Your task to perform on an android device: read, delete, or share a saved page in the chrome app Image 0: 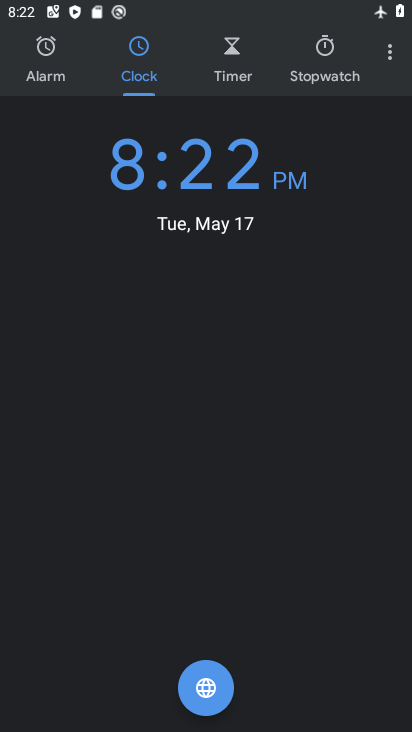
Step 0: drag from (221, 632) to (246, 566)
Your task to perform on an android device: read, delete, or share a saved page in the chrome app Image 1: 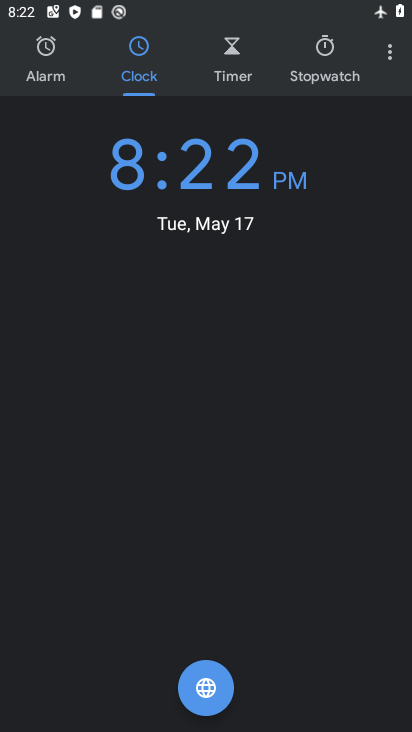
Step 1: press home button
Your task to perform on an android device: read, delete, or share a saved page in the chrome app Image 2: 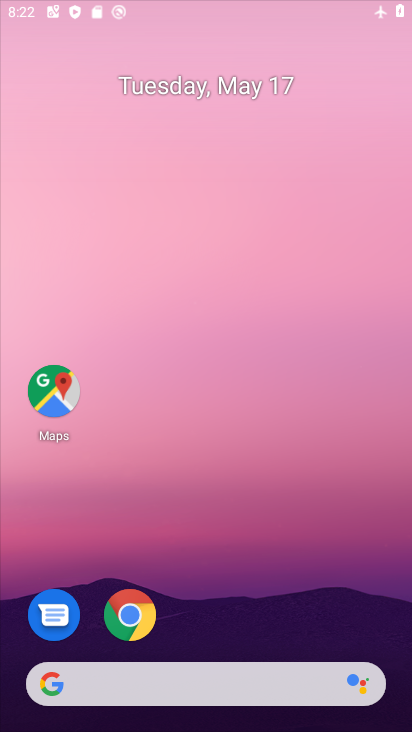
Step 2: drag from (222, 619) to (206, 202)
Your task to perform on an android device: read, delete, or share a saved page in the chrome app Image 3: 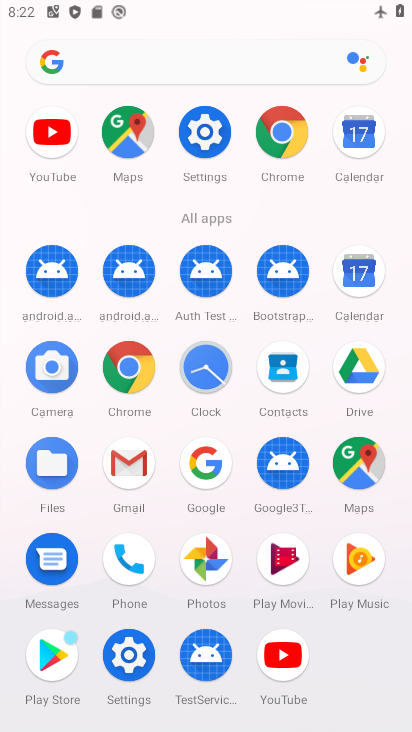
Step 3: click (111, 377)
Your task to perform on an android device: read, delete, or share a saved page in the chrome app Image 4: 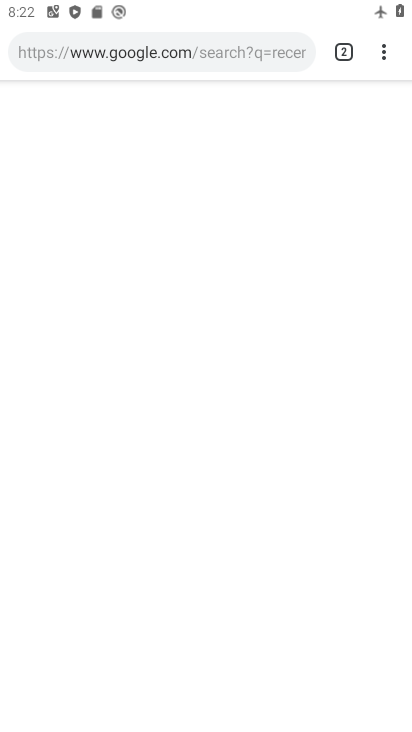
Step 4: click (377, 52)
Your task to perform on an android device: read, delete, or share a saved page in the chrome app Image 5: 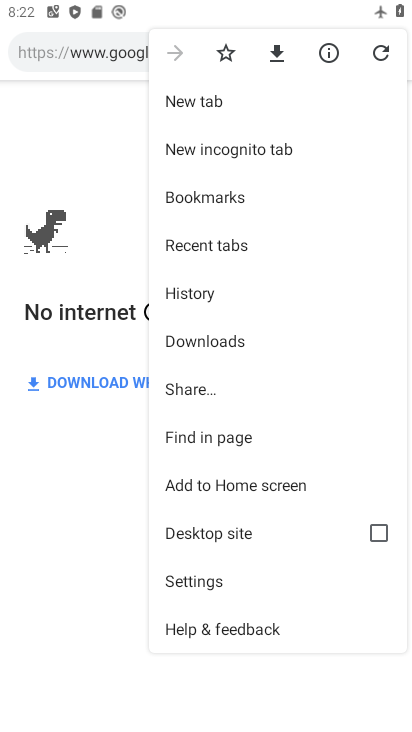
Step 5: click (214, 575)
Your task to perform on an android device: read, delete, or share a saved page in the chrome app Image 6: 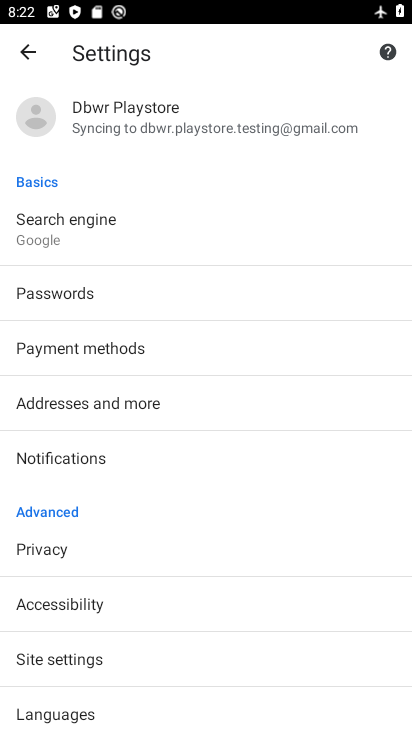
Step 6: click (21, 51)
Your task to perform on an android device: read, delete, or share a saved page in the chrome app Image 7: 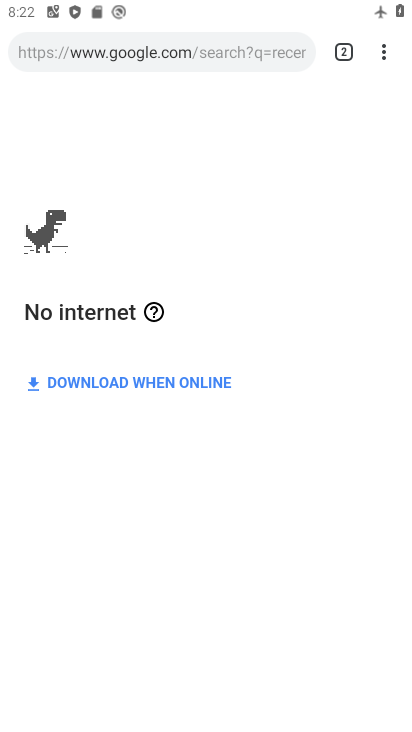
Step 7: click (379, 51)
Your task to perform on an android device: read, delete, or share a saved page in the chrome app Image 8: 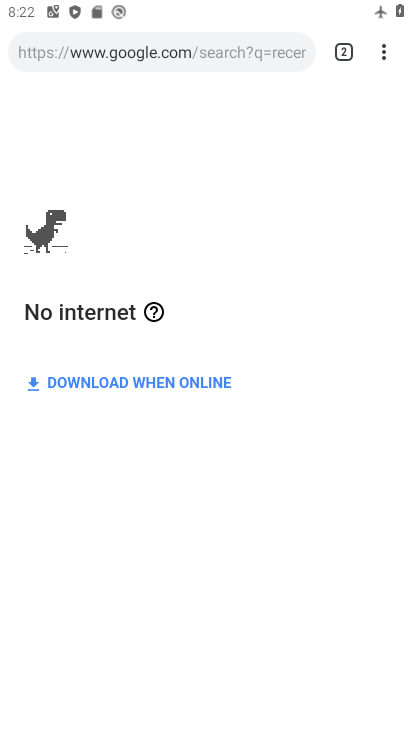
Step 8: click (374, 53)
Your task to perform on an android device: read, delete, or share a saved page in the chrome app Image 9: 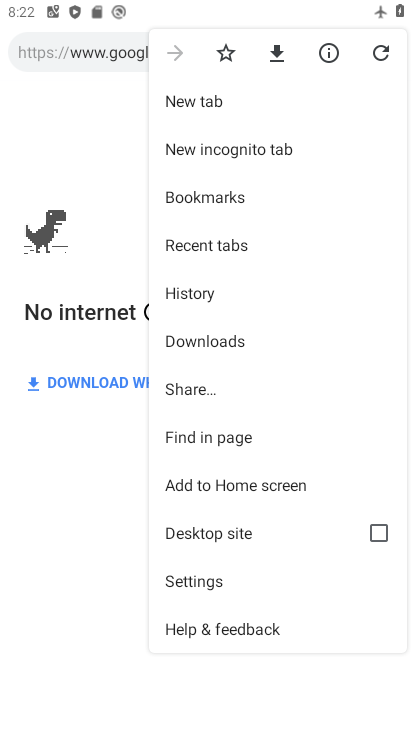
Step 9: drag from (240, 205) to (217, 333)
Your task to perform on an android device: read, delete, or share a saved page in the chrome app Image 10: 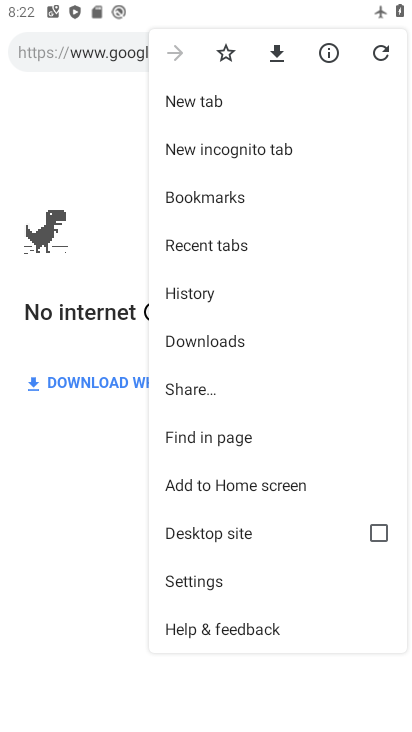
Step 10: click (217, 333)
Your task to perform on an android device: read, delete, or share a saved page in the chrome app Image 11: 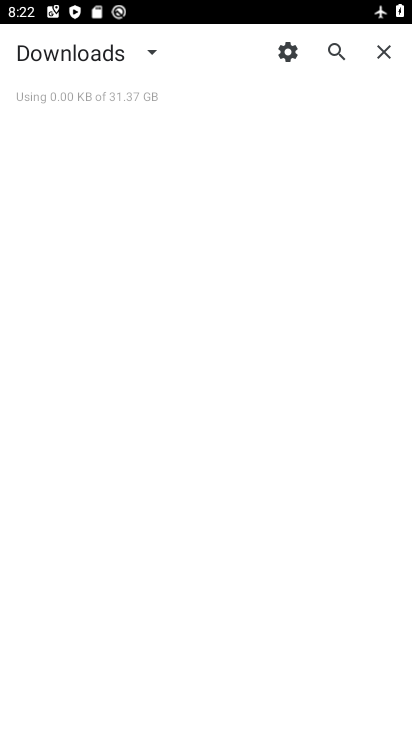
Step 11: click (142, 53)
Your task to perform on an android device: read, delete, or share a saved page in the chrome app Image 12: 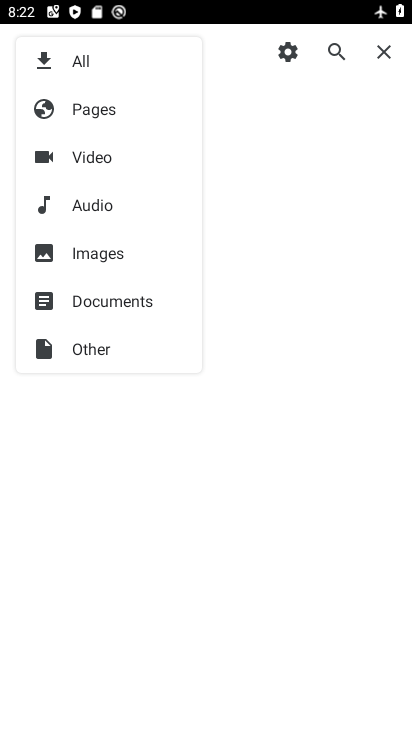
Step 12: click (101, 100)
Your task to perform on an android device: read, delete, or share a saved page in the chrome app Image 13: 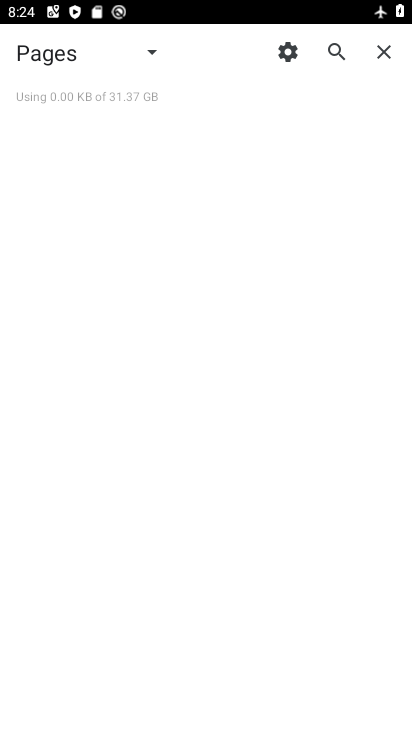
Step 13: task complete